Your task to perform on an android device: all mails in gmail Image 0: 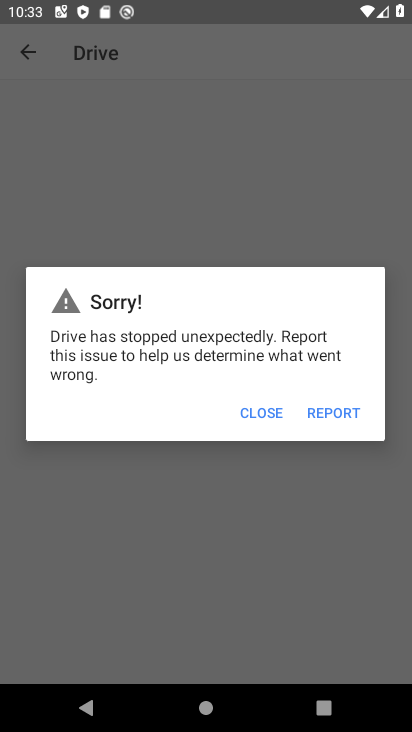
Step 0: press home button
Your task to perform on an android device: all mails in gmail Image 1: 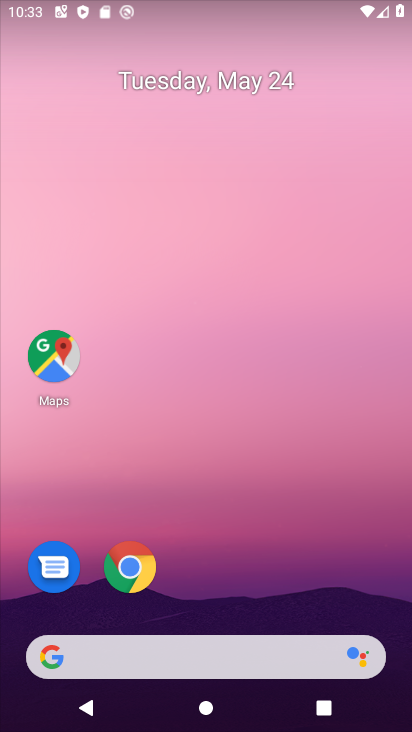
Step 1: drag from (303, 663) to (409, 129)
Your task to perform on an android device: all mails in gmail Image 2: 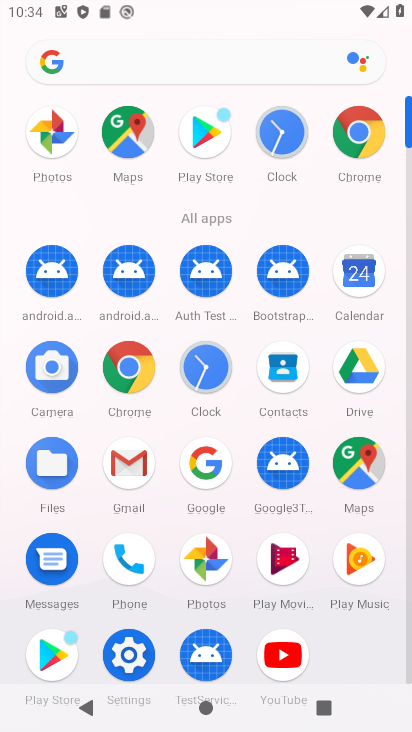
Step 2: click (121, 461)
Your task to perform on an android device: all mails in gmail Image 3: 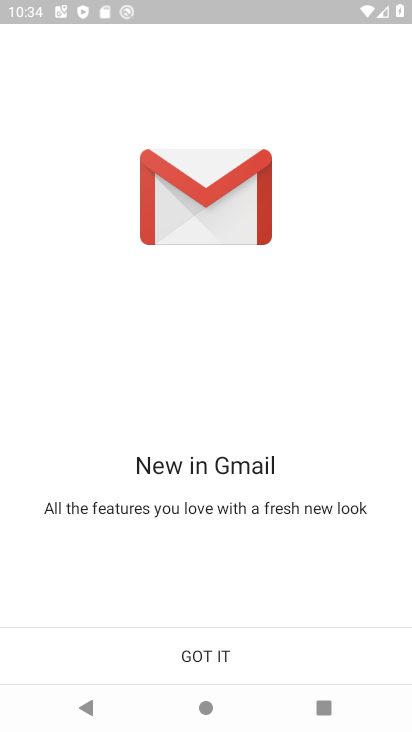
Step 3: click (176, 656)
Your task to perform on an android device: all mails in gmail Image 4: 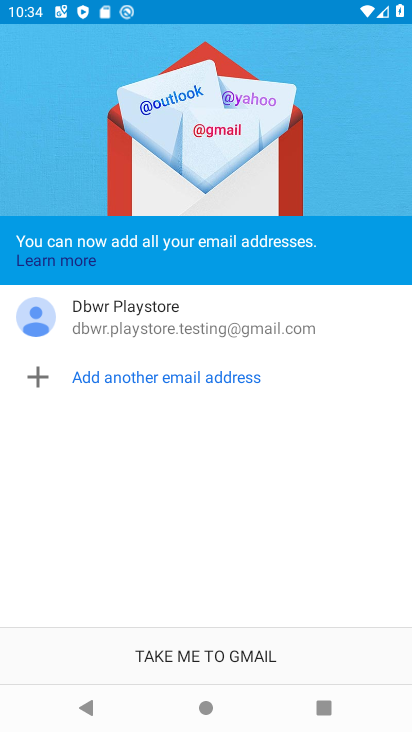
Step 4: click (249, 651)
Your task to perform on an android device: all mails in gmail Image 5: 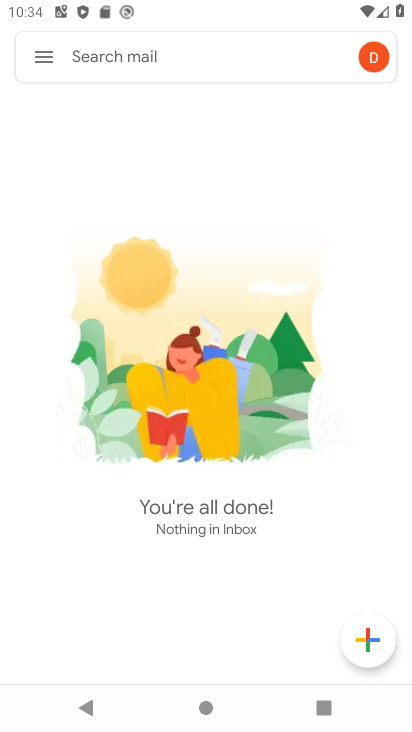
Step 5: click (58, 54)
Your task to perform on an android device: all mails in gmail Image 6: 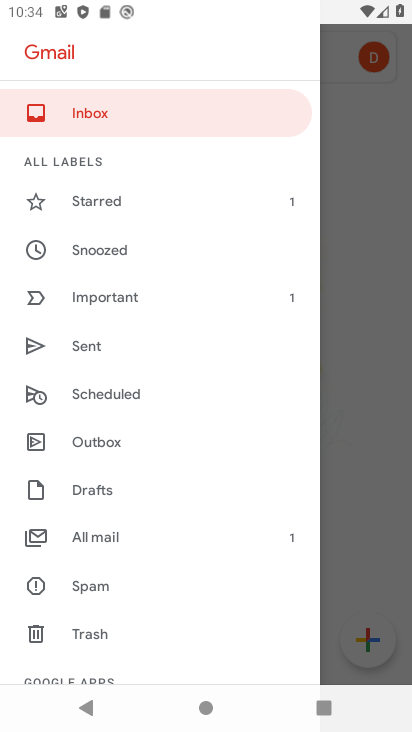
Step 6: click (134, 539)
Your task to perform on an android device: all mails in gmail Image 7: 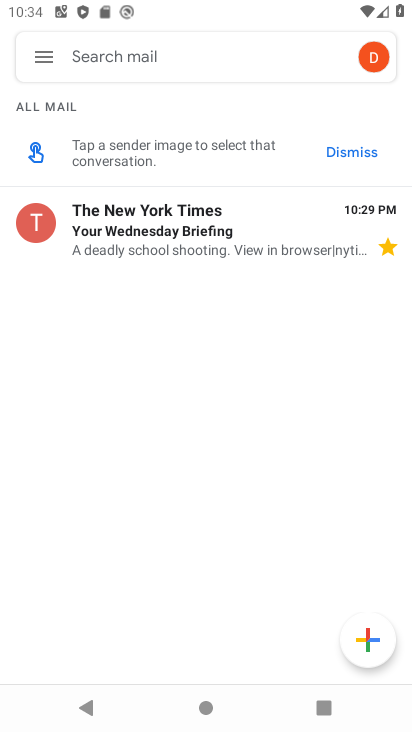
Step 7: task complete